Your task to perform on an android device: Go to privacy settings Image 0: 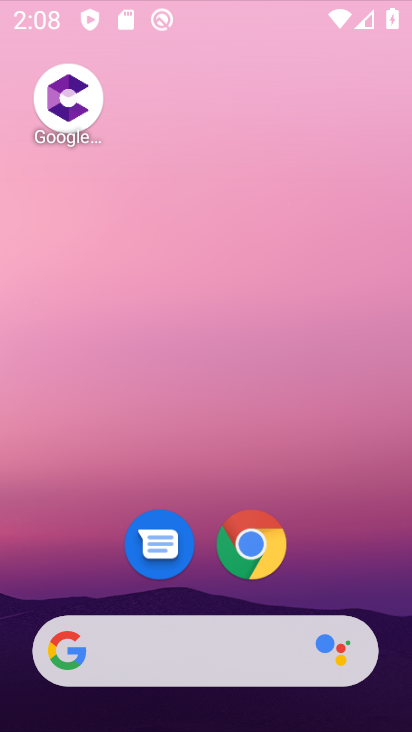
Step 0: click (268, 347)
Your task to perform on an android device: Go to privacy settings Image 1: 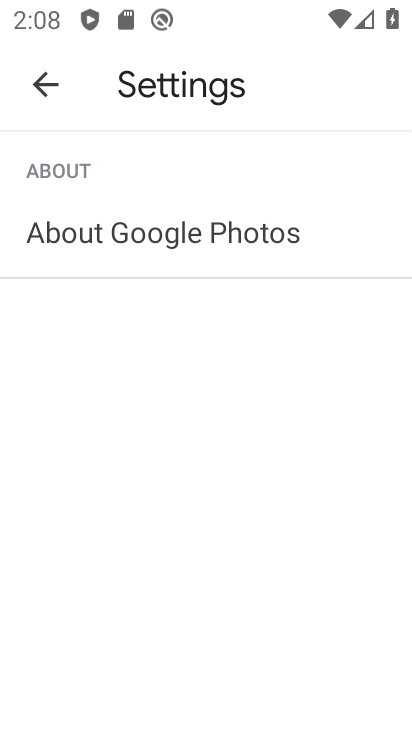
Step 1: drag from (219, 608) to (218, 304)
Your task to perform on an android device: Go to privacy settings Image 2: 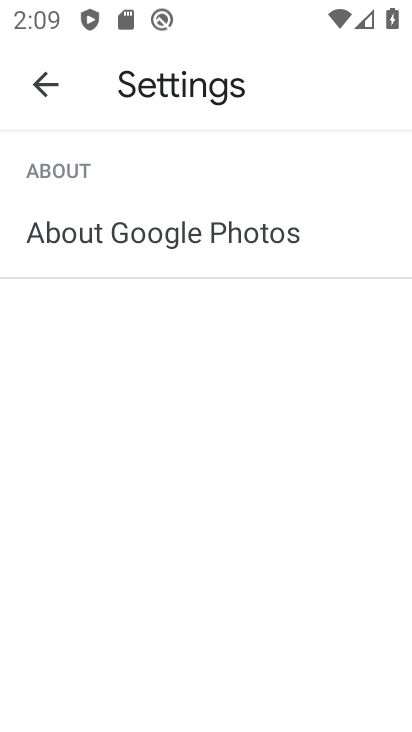
Step 2: press home button
Your task to perform on an android device: Go to privacy settings Image 3: 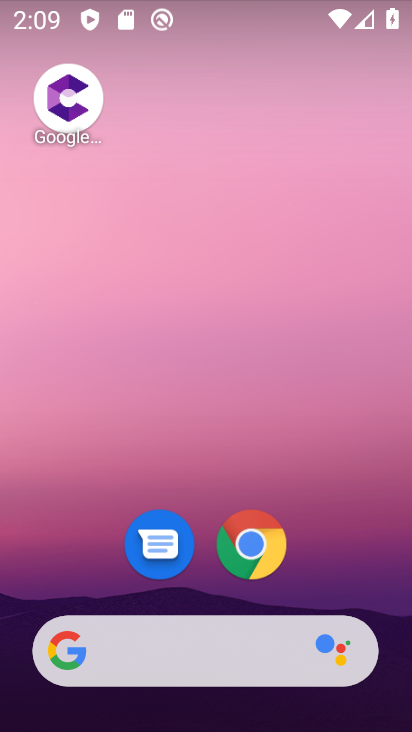
Step 3: drag from (284, 596) to (305, 278)
Your task to perform on an android device: Go to privacy settings Image 4: 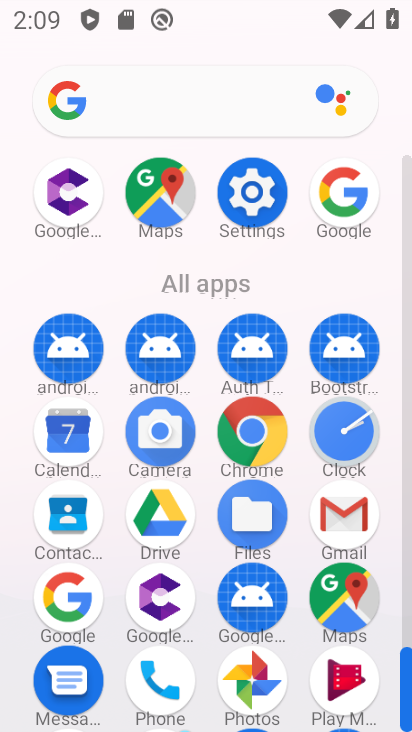
Step 4: click (249, 191)
Your task to perform on an android device: Go to privacy settings Image 5: 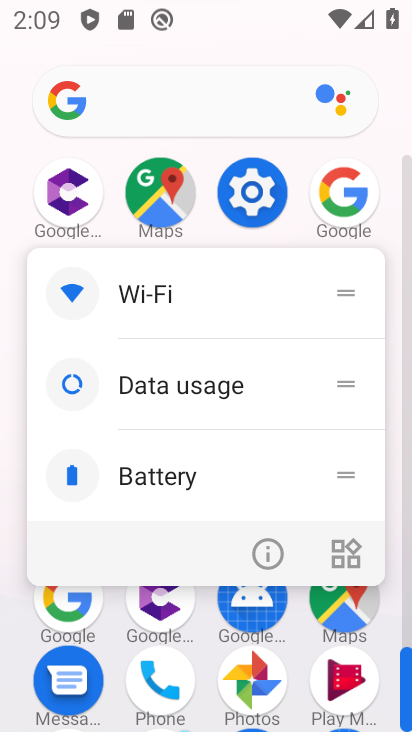
Step 5: click (249, 191)
Your task to perform on an android device: Go to privacy settings Image 6: 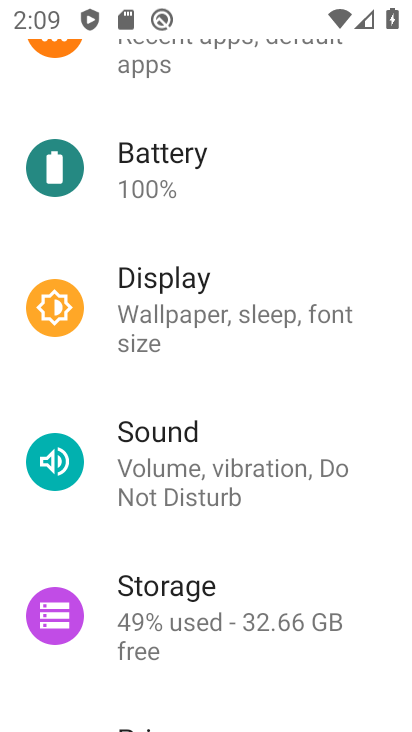
Step 6: click (190, 570)
Your task to perform on an android device: Go to privacy settings Image 7: 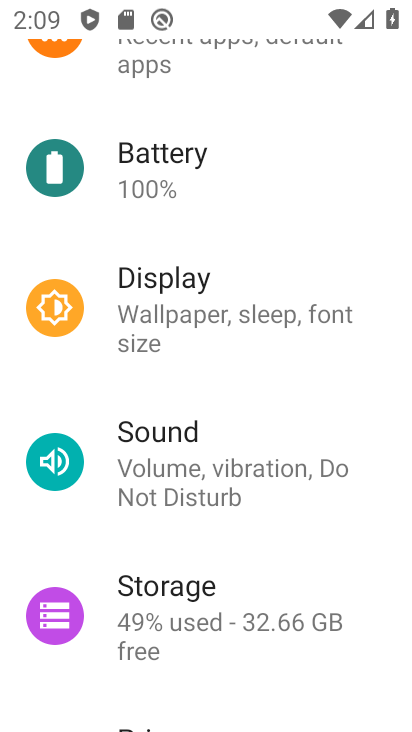
Step 7: drag from (226, 266) to (268, 153)
Your task to perform on an android device: Go to privacy settings Image 8: 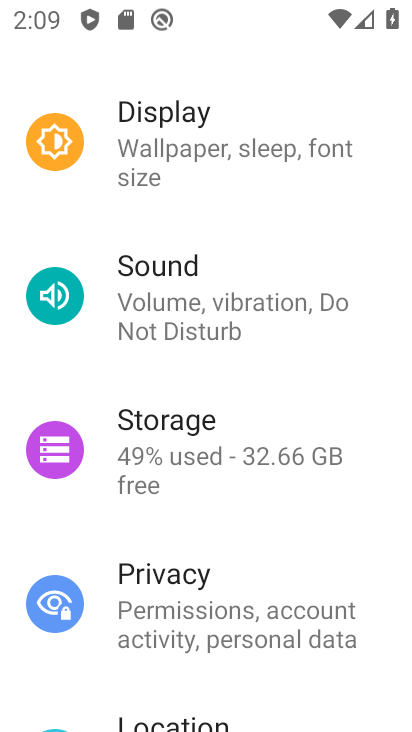
Step 8: click (211, 590)
Your task to perform on an android device: Go to privacy settings Image 9: 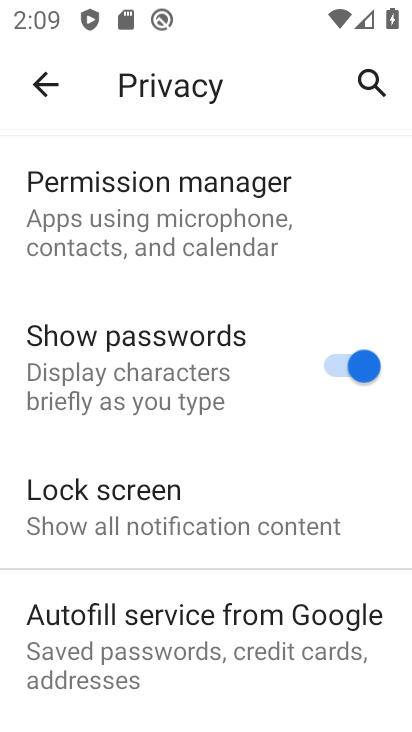
Step 9: task complete